Your task to perform on an android device: toggle priority inbox in the gmail app Image 0: 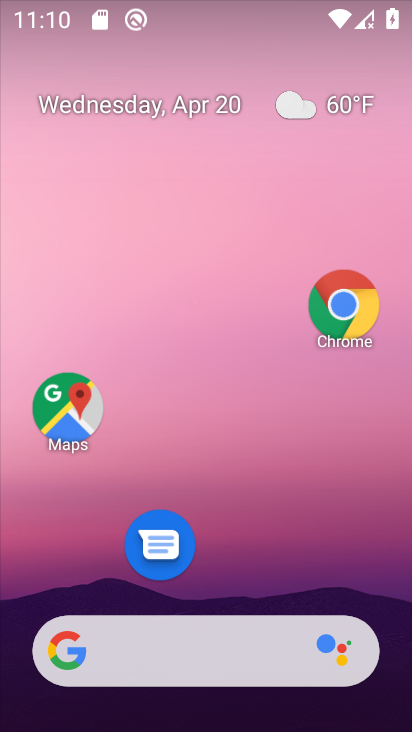
Step 0: click (266, 312)
Your task to perform on an android device: toggle priority inbox in the gmail app Image 1: 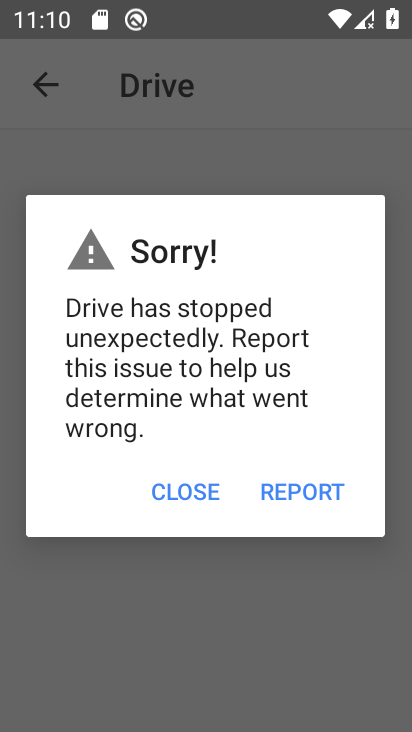
Step 1: press home button
Your task to perform on an android device: toggle priority inbox in the gmail app Image 2: 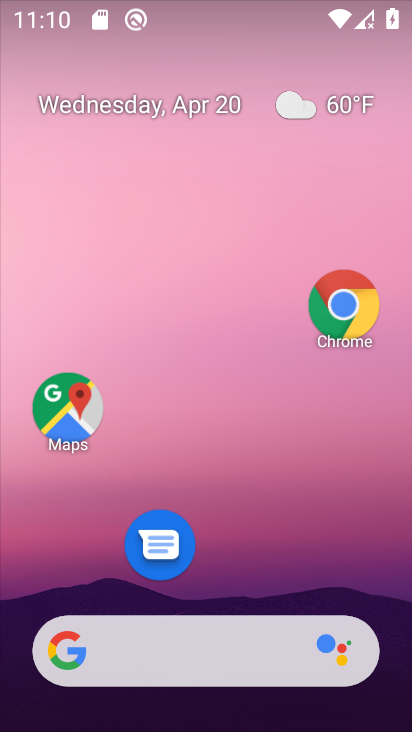
Step 2: drag from (280, 524) to (270, 125)
Your task to perform on an android device: toggle priority inbox in the gmail app Image 3: 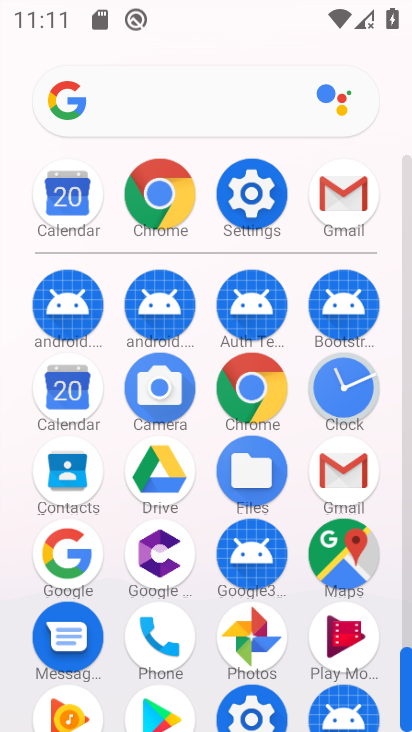
Step 3: click (346, 476)
Your task to perform on an android device: toggle priority inbox in the gmail app Image 4: 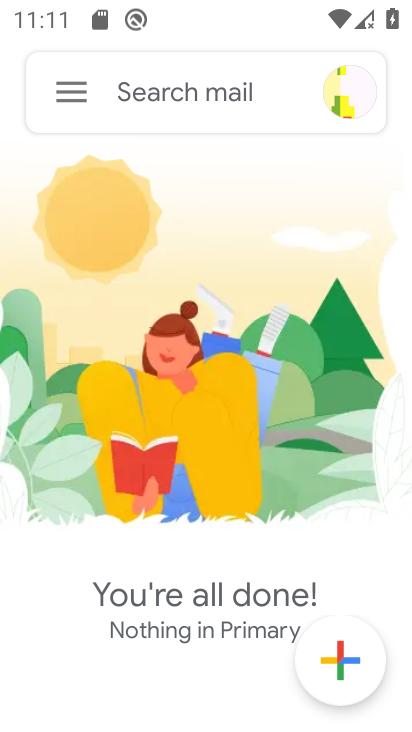
Step 4: click (67, 95)
Your task to perform on an android device: toggle priority inbox in the gmail app Image 5: 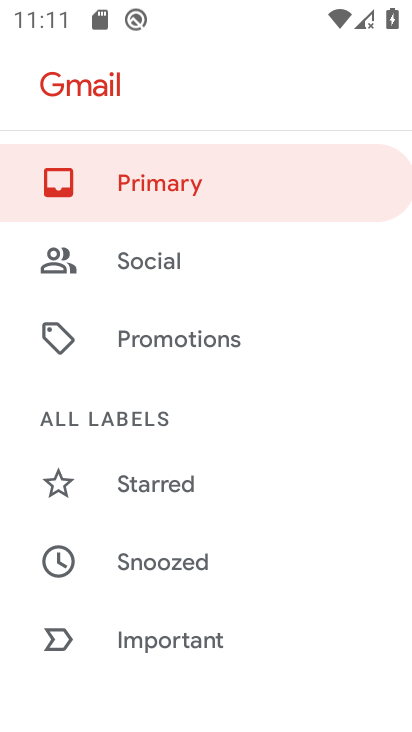
Step 5: drag from (200, 540) to (267, 165)
Your task to perform on an android device: toggle priority inbox in the gmail app Image 6: 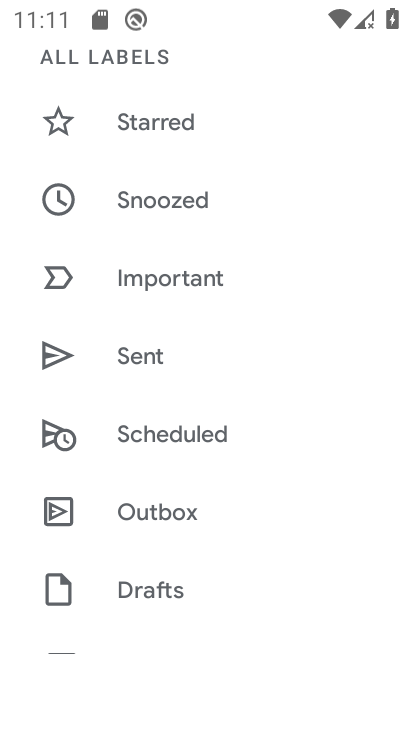
Step 6: drag from (196, 522) to (272, 194)
Your task to perform on an android device: toggle priority inbox in the gmail app Image 7: 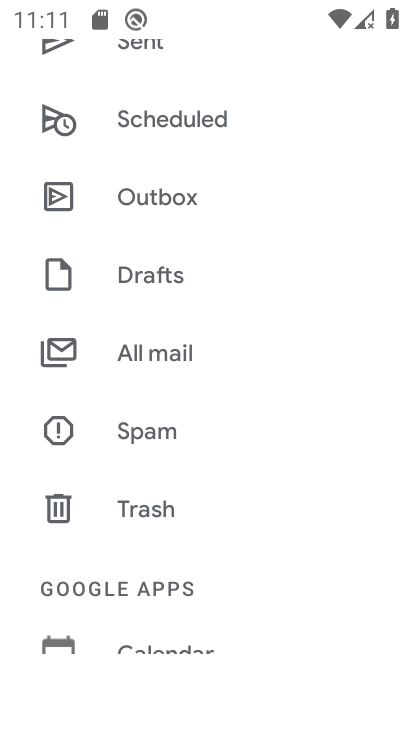
Step 7: drag from (205, 486) to (252, 226)
Your task to perform on an android device: toggle priority inbox in the gmail app Image 8: 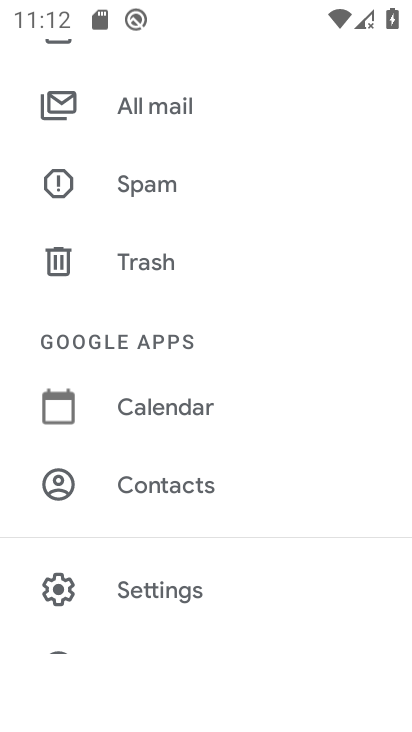
Step 8: click (214, 595)
Your task to perform on an android device: toggle priority inbox in the gmail app Image 9: 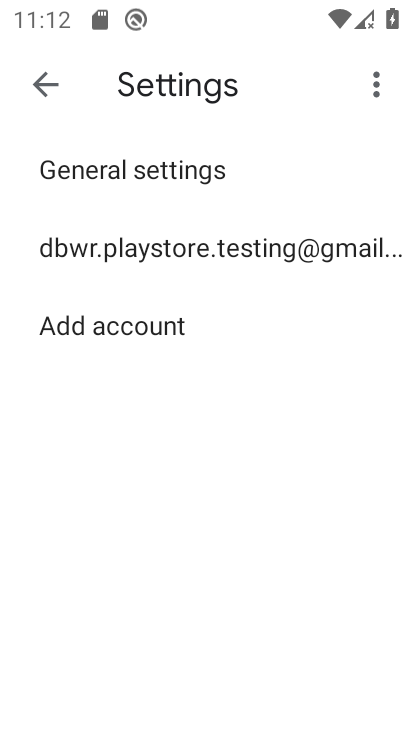
Step 9: click (196, 259)
Your task to perform on an android device: toggle priority inbox in the gmail app Image 10: 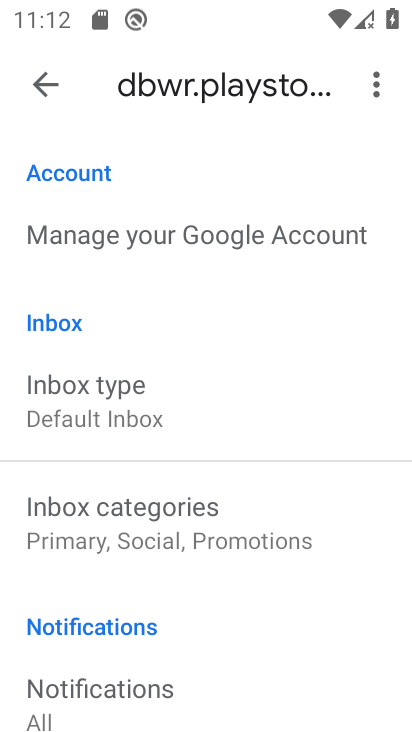
Step 10: click (142, 413)
Your task to perform on an android device: toggle priority inbox in the gmail app Image 11: 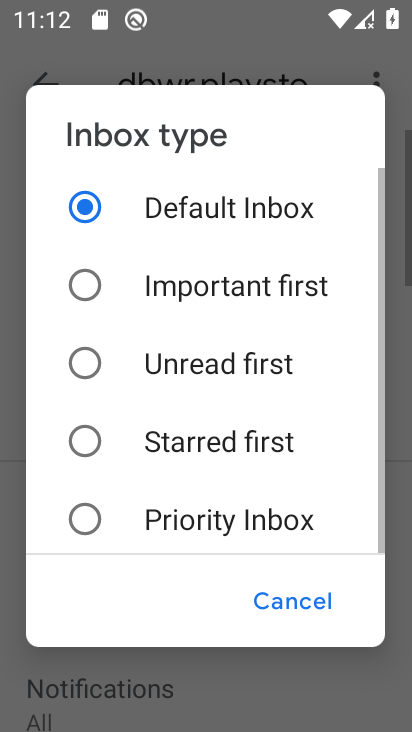
Step 11: click (88, 517)
Your task to perform on an android device: toggle priority inbox in the gmail app Image 12: 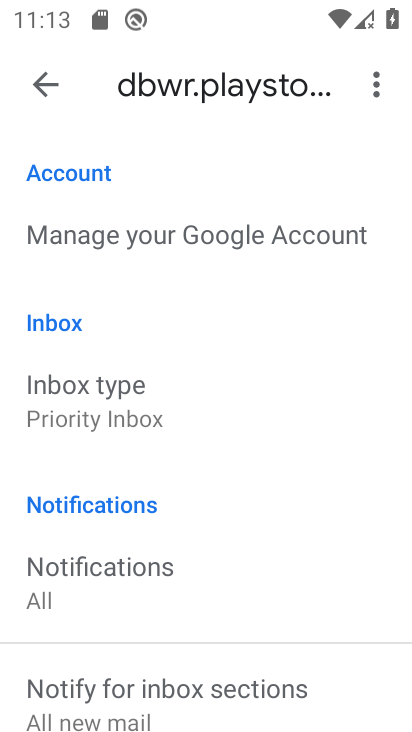
Step 12: task complete